Your task to perform on an android device: turn on translation in the chrome app Image 0: 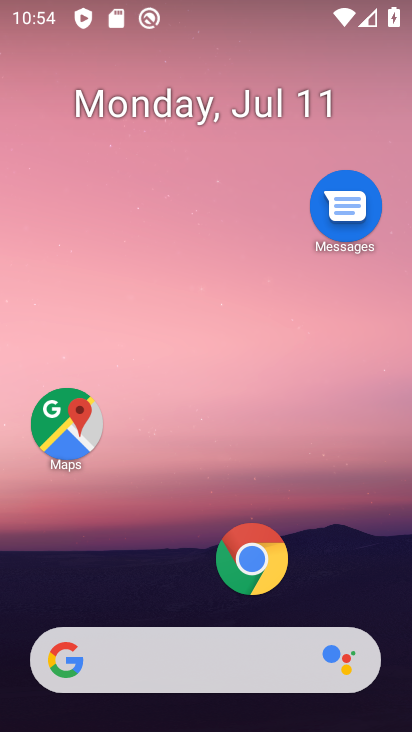
Step 0: drag from (365, 562) to (352, 109)
Your task to perform on an android device: turn on translation in the chrome app Image 1: 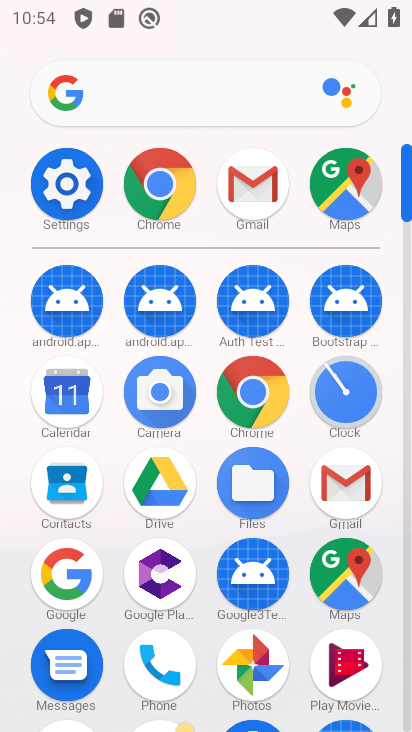
Step 1: click (174, 182)
Your task to perform on an android device: turn on translation in the chrome app Image 2: 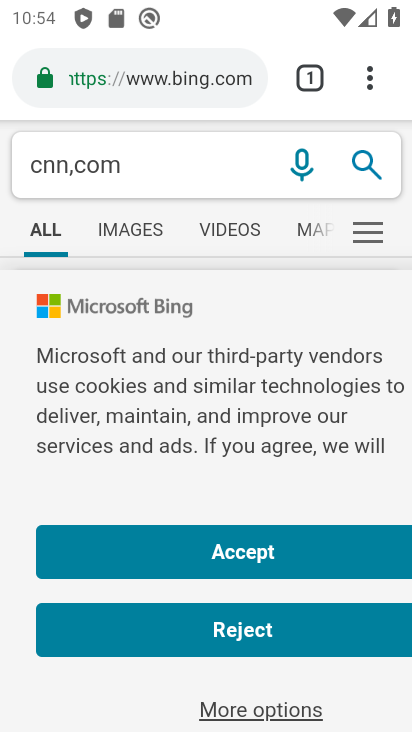
Step 2: click (370, 80)
Your task to perform on an android device: turn on translation in the chrome app Image 3: 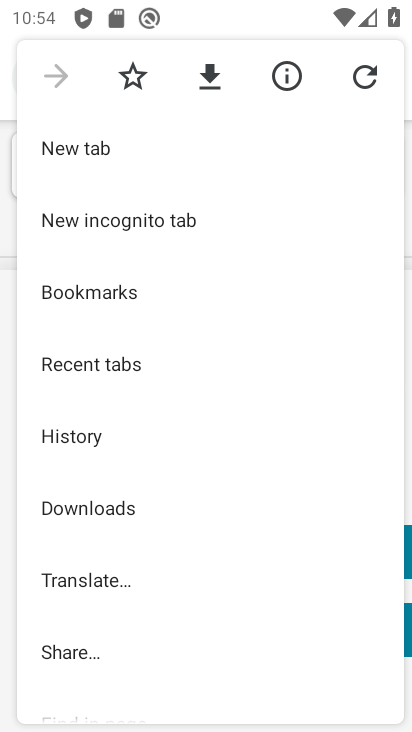
Step 3: drag from (289, 483) to (301, 371)
Your task to perform on an android device: turn on translation in the chrome app Image 4: 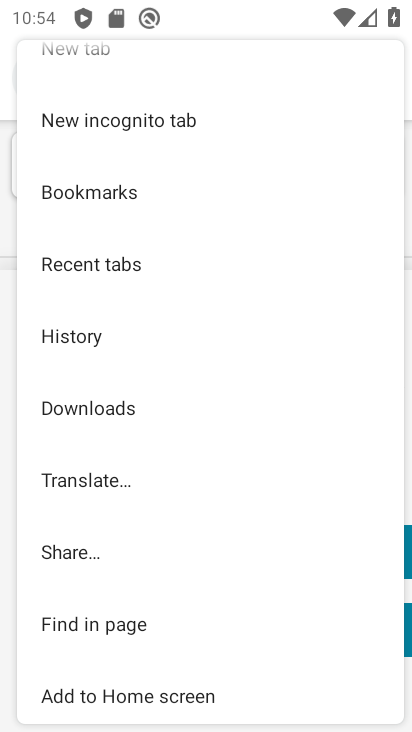
Step 4: drag from (290, 520) to (291, 427)
Your task to perform on an android device: turn on translation in the chrome app Image 5: 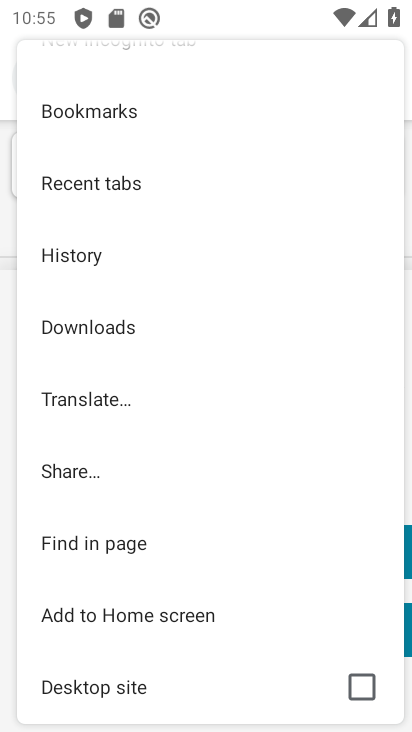
Step 5: drag from (276, 516) to (290, 358)
Your task to perform on an android device: turn on translation in the chrome app Image 6: 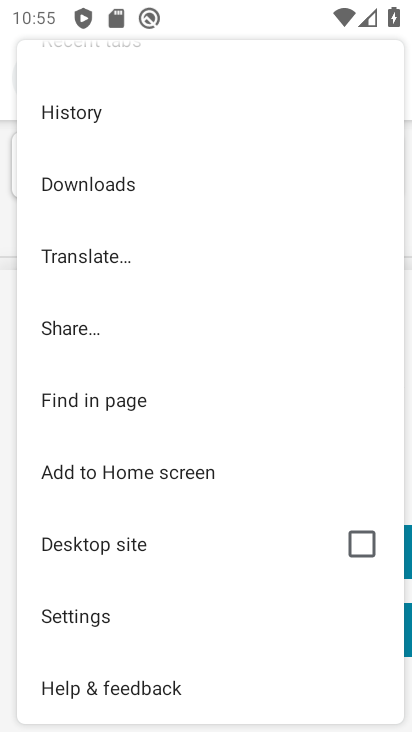
Step 6: drag from (280, 499) to (283, 391)
Your task to perform on an android device: turn on translation in the chrome app Image 7: 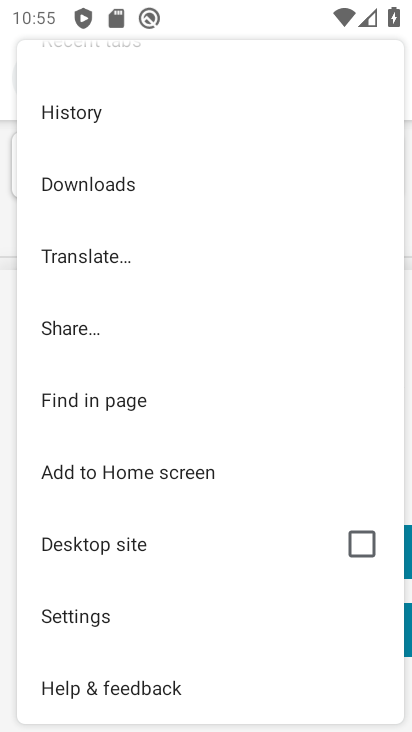
Step 7: click (85, 628)
Your task to perform on an android device: turn on translation in the chrome app Image 8: 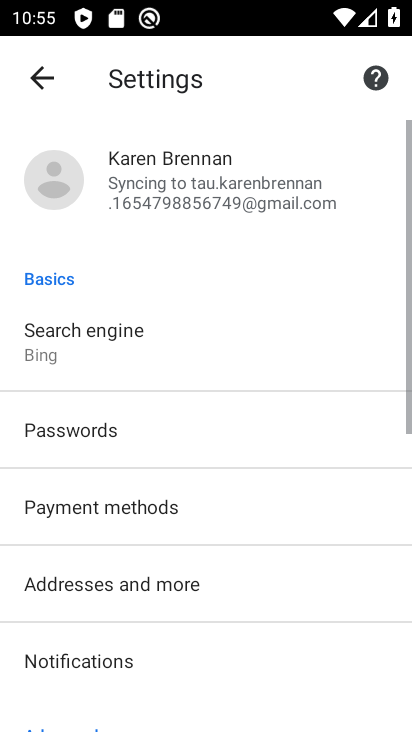
Step 8: drag from (239, 574) to (260, 469)
Your task to perform on an android device: turn on translation in the chrome app Image 9: 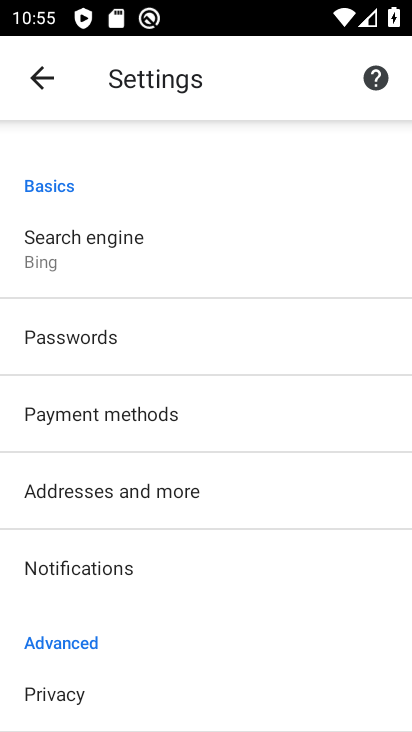
Step 9: drag from (250, 632) to (262, 480)
Your task to perform on an android device: turn on translation in the chrome app Image 10: 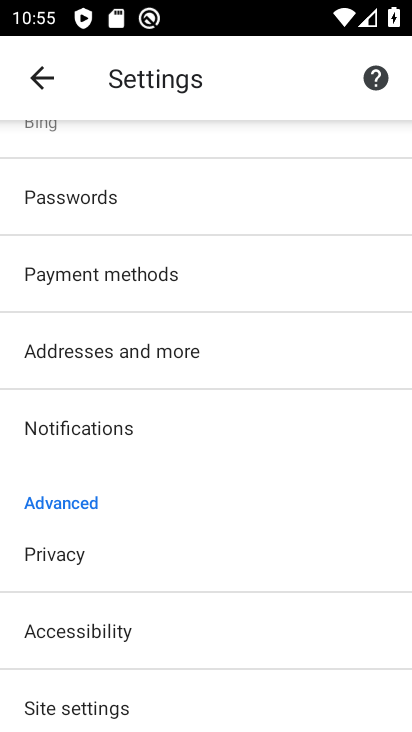
Step 10: drag from (260, 608) to (285, 405)
Your task to perform on an android device: turn on translation in the chrome app Image 11: 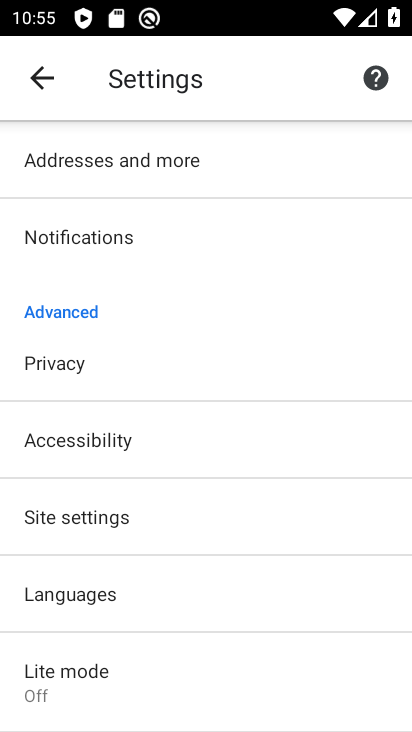
Step 11: click (168, 592)
Your task to perform on an android device: turn on translation in the chrome app Image 12: 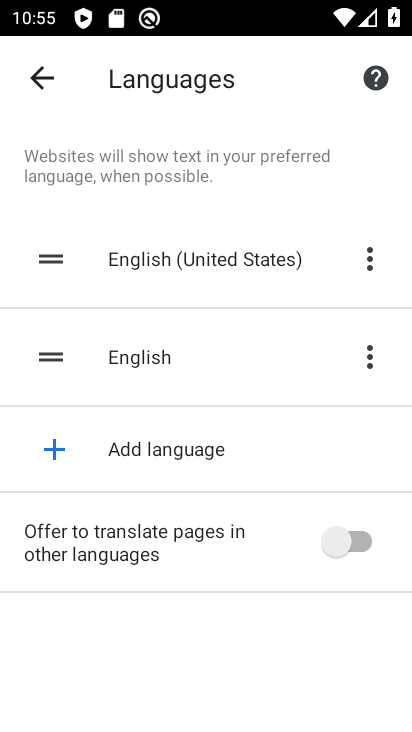
Step 12: click (330, 554)
Your task to perform on an android device: turn on translation in the chrome app Image 13: 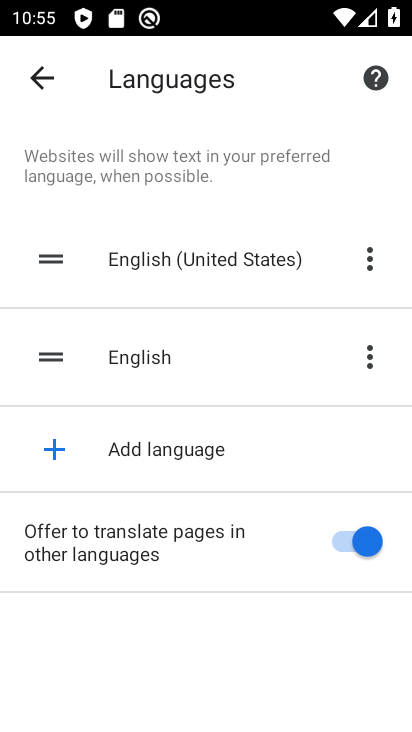
Step 13: task complete